Your task to perform on an android device: Go to notification settings Image 0: 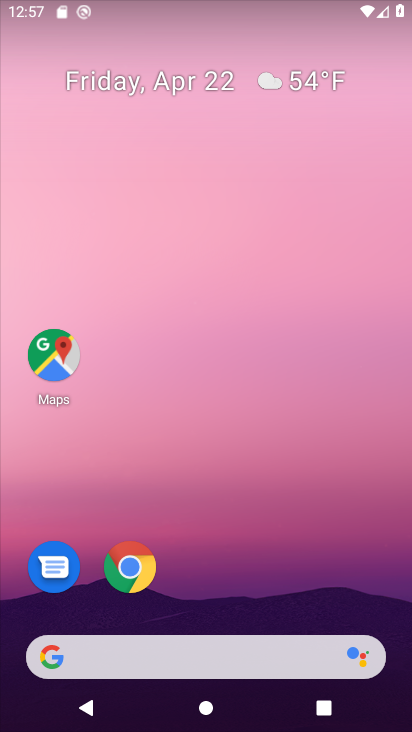
Step 0: drag from (214, 607) to (224, 47)
Your task to perform on an android device: Go to notification settings Image 1: 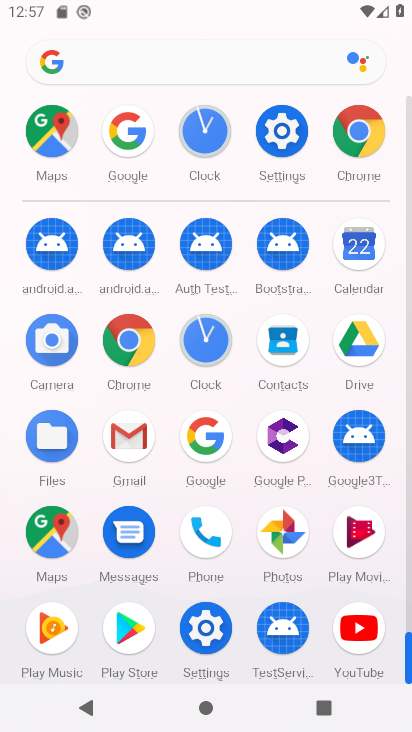
Step 1: click (281, 142)
Your task to perform on an android device: Go to notification settings Image 2: 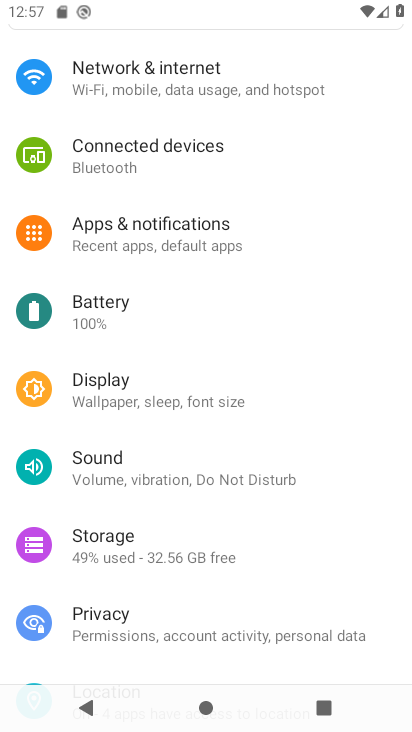
Step 2: click (242, 240)
Your task to perform on an android device: Go to notification settings Image 3: 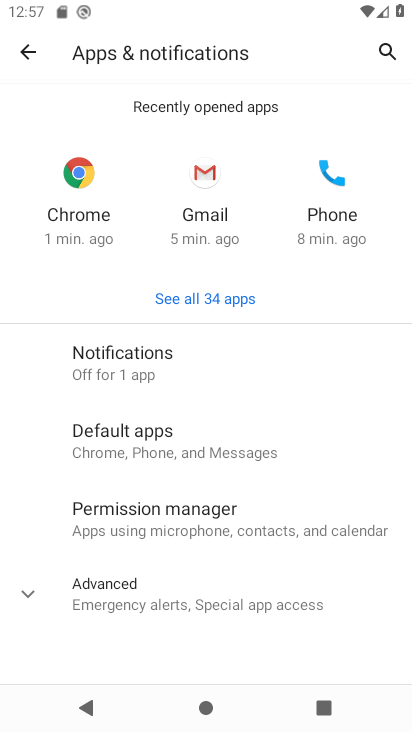
Step 3: click (205, 377)
Your task to perform on an android device: Go to notification settings Image 4: 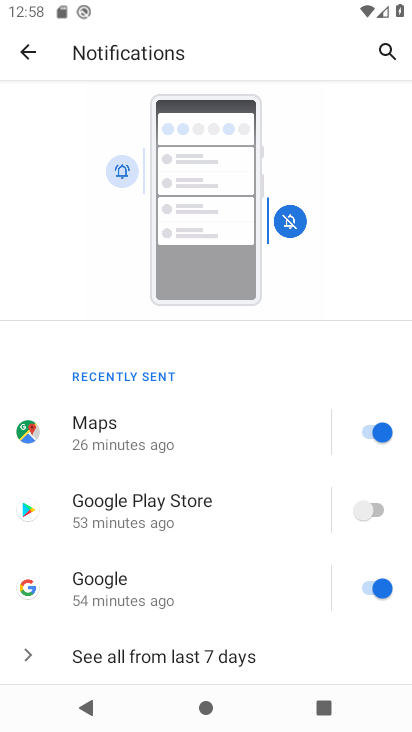
Step 4: task complete